Your task to perform on an android device: turn on location history Image 0: 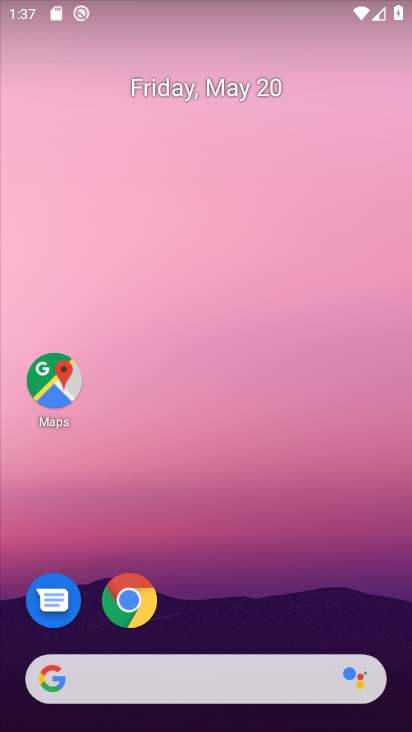
Step 0: drag from (293, 35) to (313, 7)
Your task to perform on an android device: turn on location history Image 1: 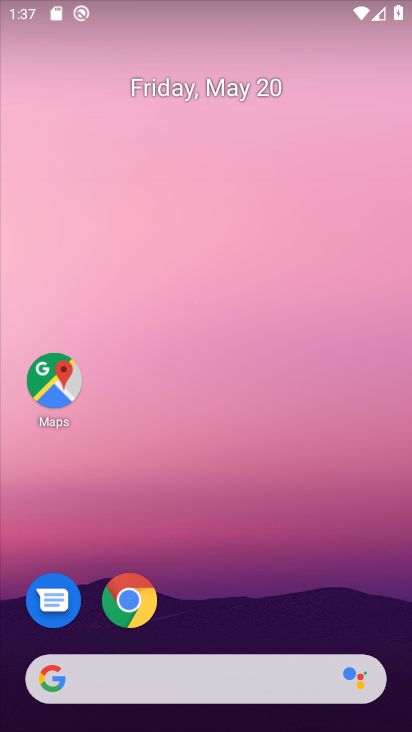
Step 1: drag from (186, 614) to (339, 31)
Your task to perform on an android device: turn on location history Image 2: 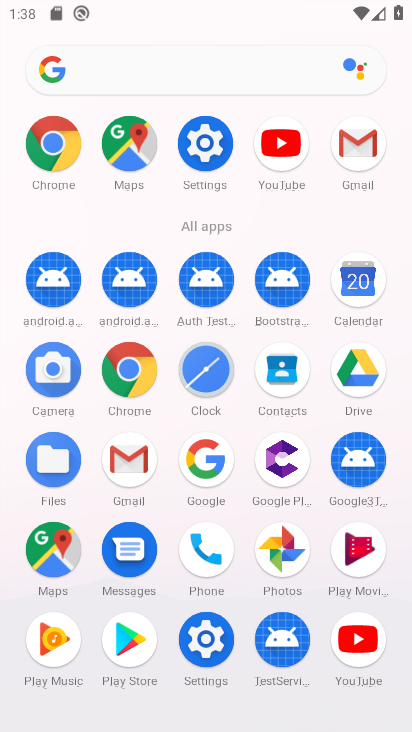
Step 2: click (217, 160)
Your task to perform on an android device: turn on location history Image 3: 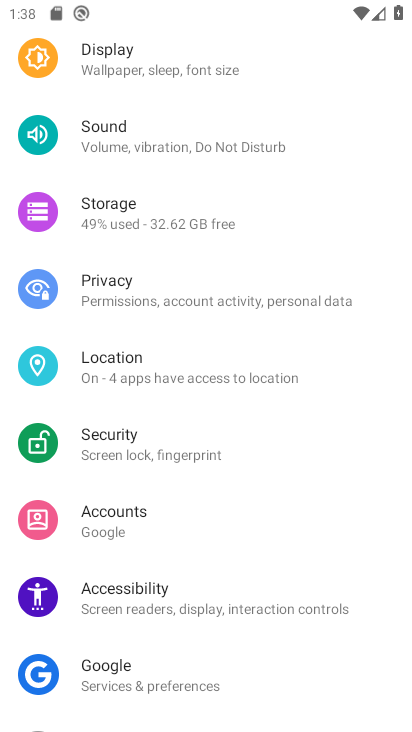
Step 3: click (167, 388)
Your task to perform on an android device: turn on location history Image 4: 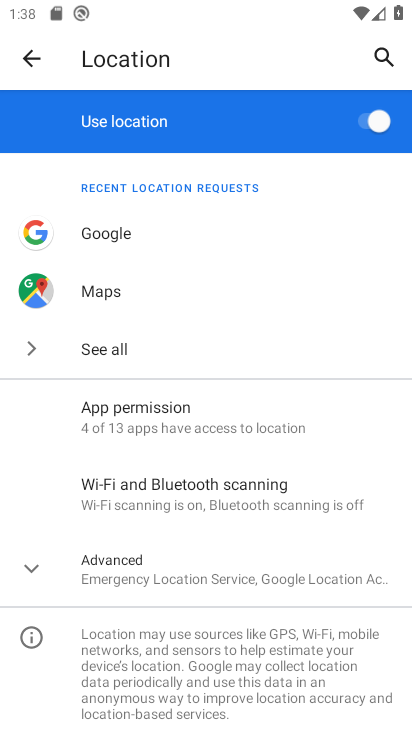
Step 4: click (121, 575)
Your task to perform on an android device: turn on location history Image 5: 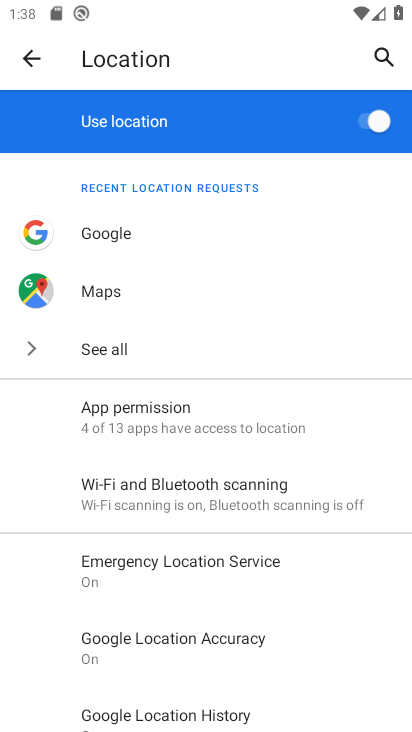
Step 5: drag from (206, 652) to (220, 416)
Your task to perform on an android device: turn on location history Image 6: 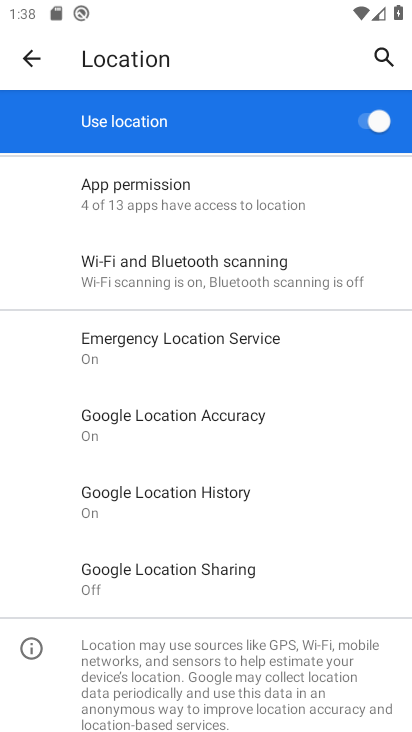
Step 6: click (168, 510)
Your task to perform on an android device: turn on location history Image 7: 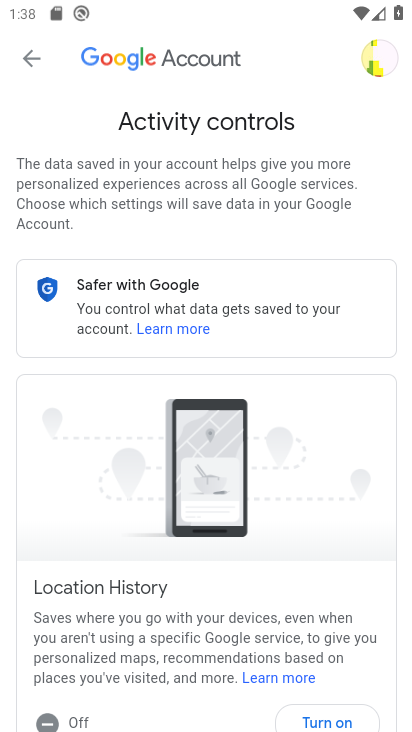
Step 7: drag from (251, 548) to (285, 304)
Your task to perform on an android device: turn on location history Image 8: 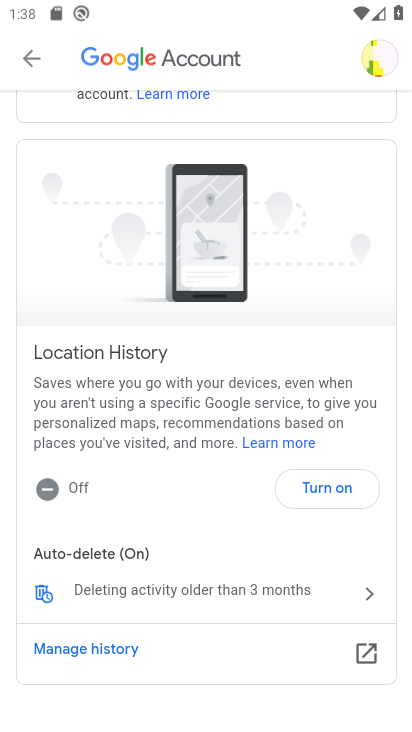
Step 8: click (328, 488)
Your task to perform on an android device: turn on location history Image 9: 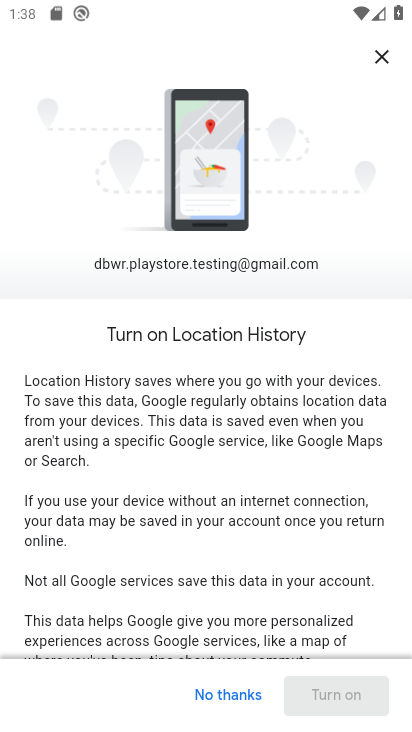
Step 9: drag from (266, 619) to (264, 269)
Your task to perform on an android device: turn on location history Image 10: 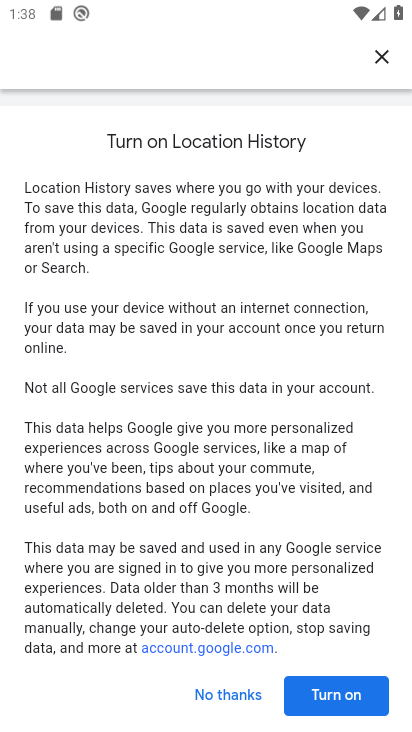
Step 10: drag from (238, 574) to (277, 237)
Your task to perform on an android device: turn on location history Image 11: 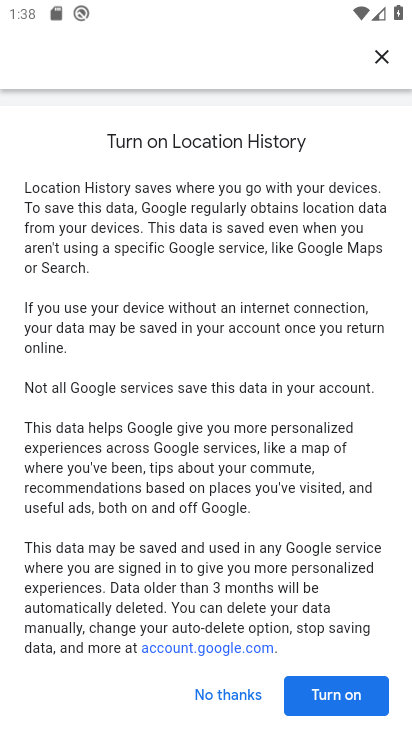
Step 11: click (333, 697)
Your task to perform on an android device: turn on location history Image 12: 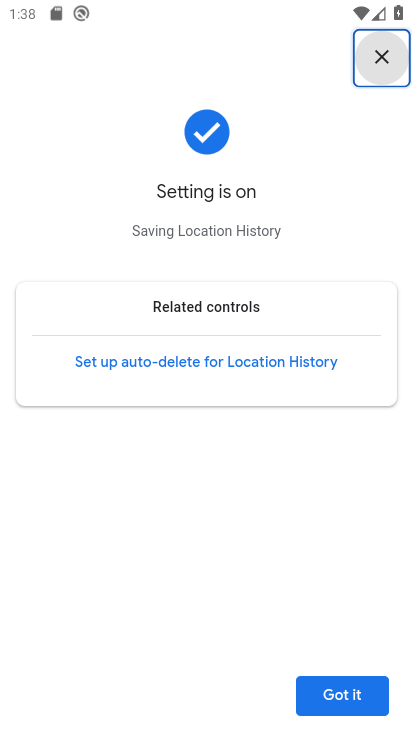
Step 12: click (336, 691)
Your task to perform on an android device: turn on location history Image 13: 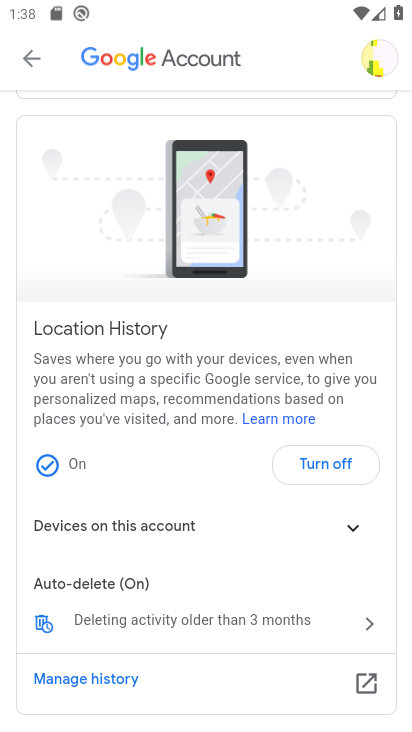
Step 13: task complete